Your task to perform on an android device: open app "Nova Launcher" (install if not already installed) and enter user name: "haggard@gmail.com" and password: "sadder" Image 0: 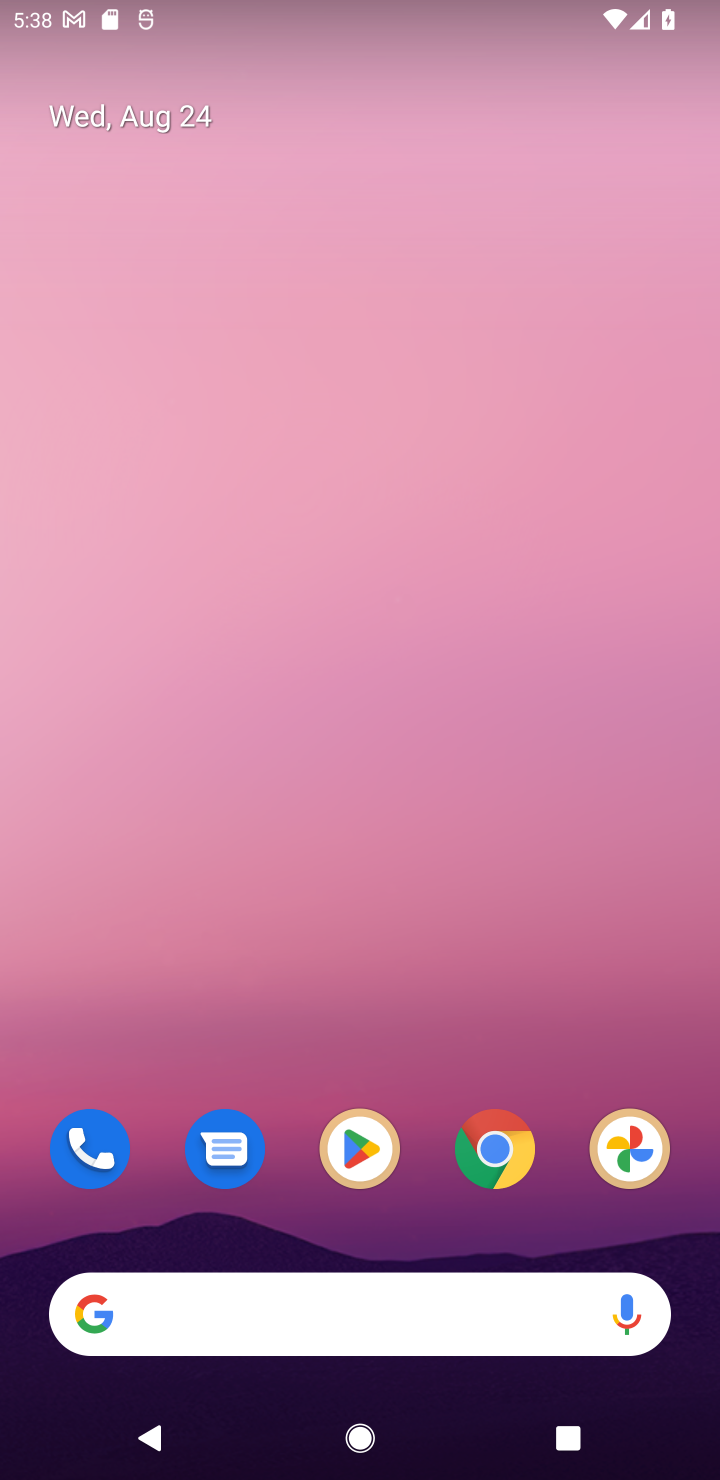
Step 0: click (359, 1132)
Your task to perform on an android device: open app "Nova Launcher" (install if not already installed) and enter user name: "haggard@gmail.com" and password: "sadder" Image 1: 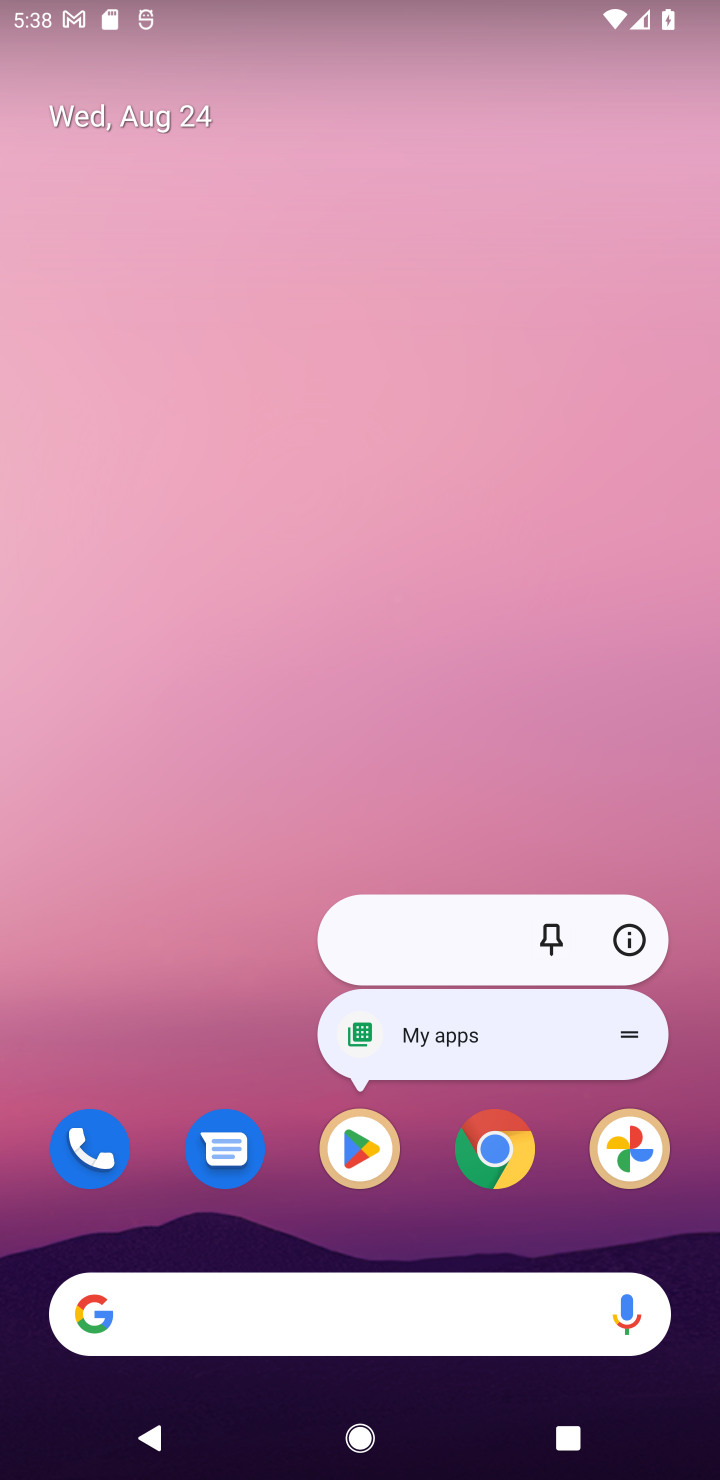
Step 1: click (359, 1134)
Your task to perform on an android device: open app "Nova Launcher" (install if not already installed) and enter user name: "haggard@gmail.com" and password: "sadder" Image 2: 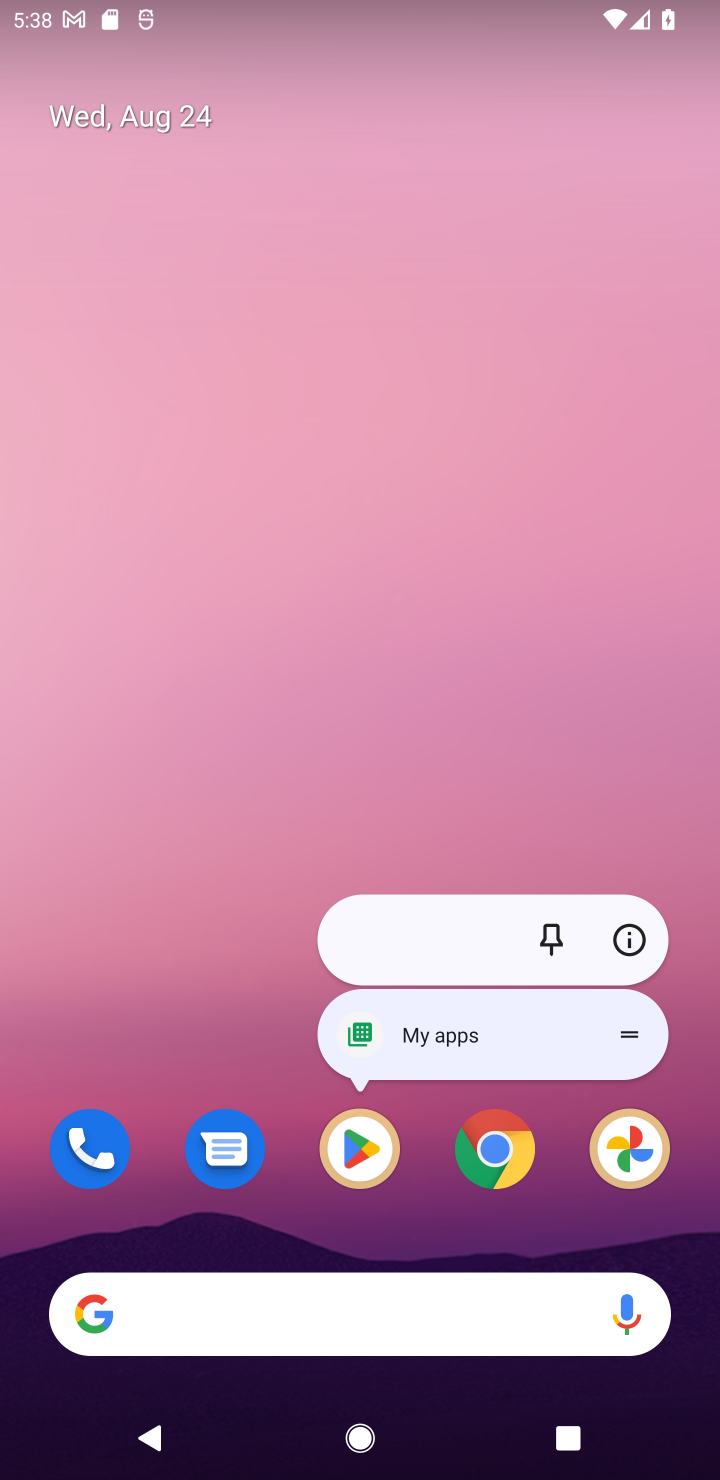
Step 2: click (359, 1136)
Your task to perform on an android device: open app "Nova Launcher" (install if not already installed) and enter user name: "haggard@gmail.com" and password: "sadder" Image 3: 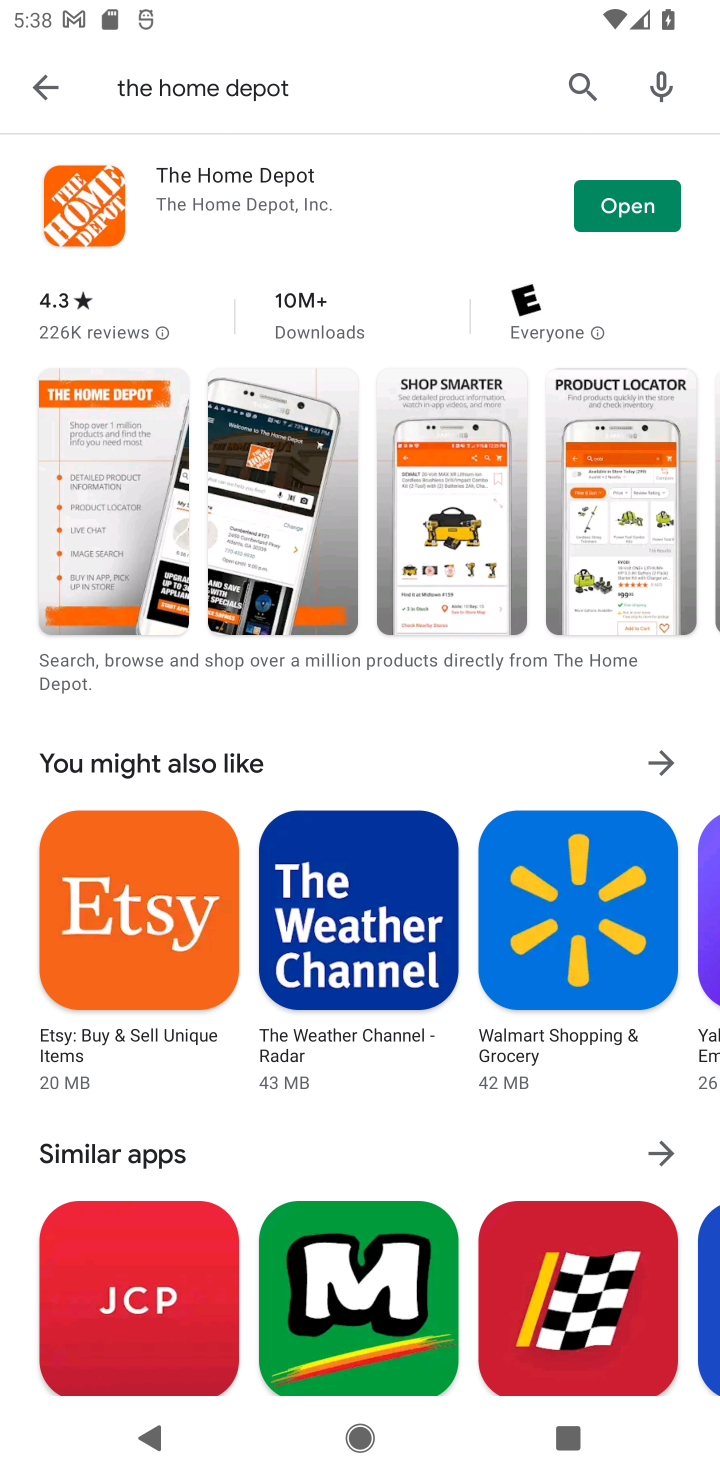
Step 3: click (563, 78)
Your task to perform on an android device: open app "Nova Launcher" (install if not already installed) and enter user name: "haggard@gmail.com" and password: "sadder" Image 4: 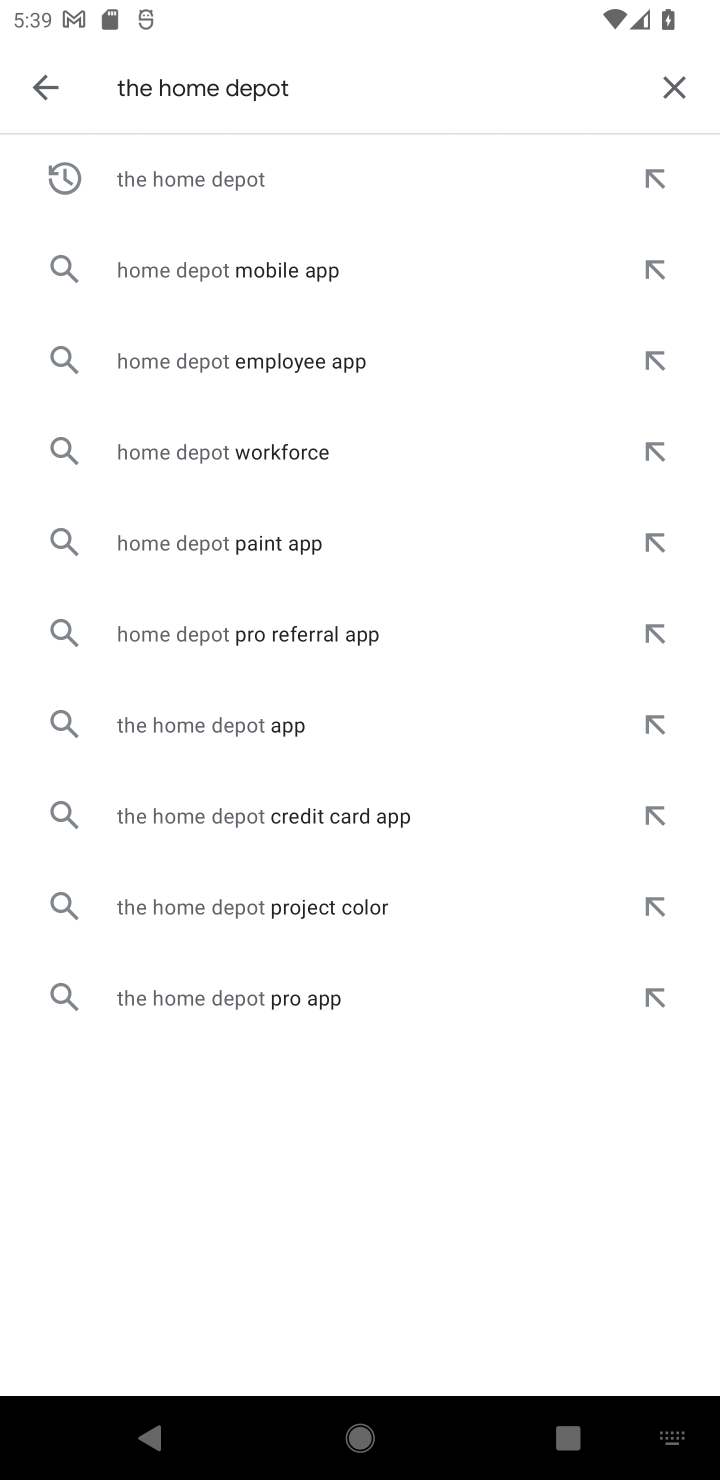
Step 4: click (661, 82)
Your task to perform on an android device: open app "Nova Launcher" (install if not already installed) and enter user name: "haggard@gmail.com" and password: "sadder" Image 5: 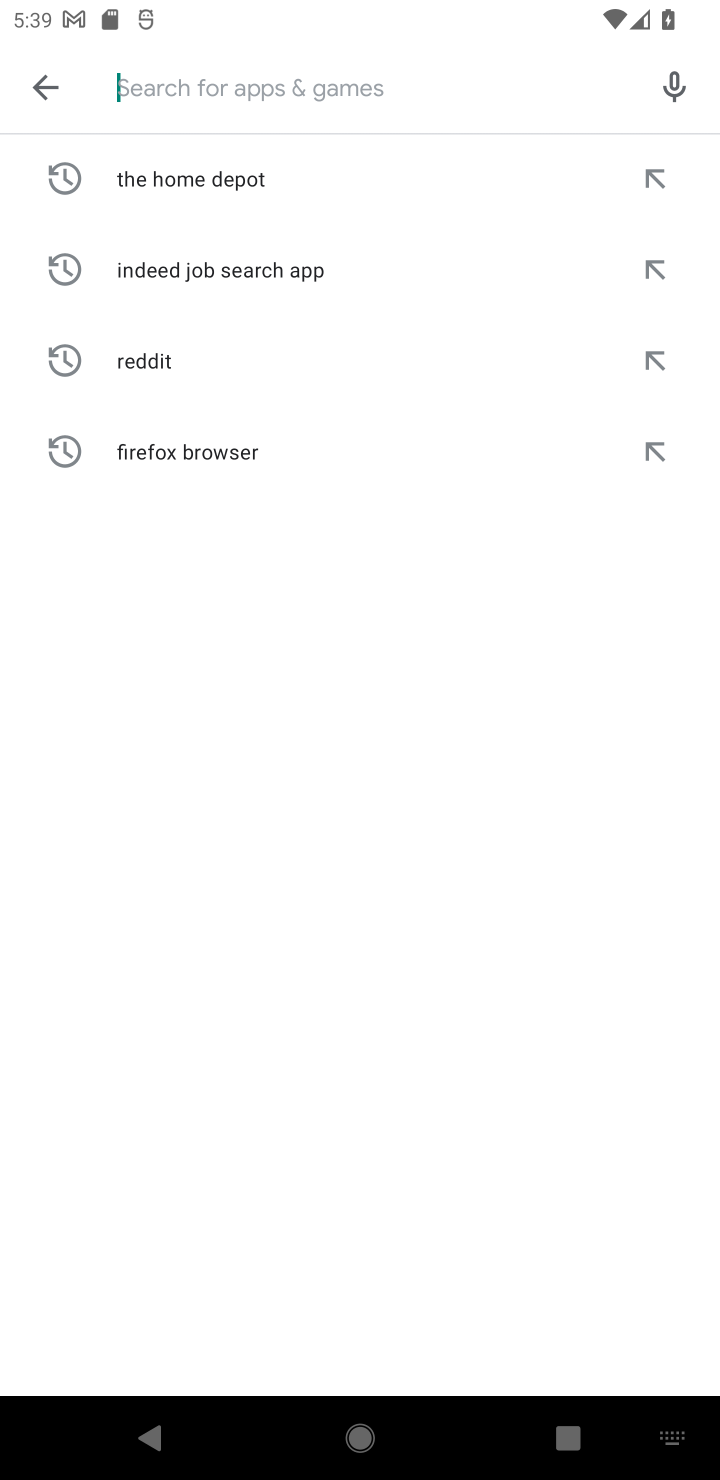
Step 5: type "Nova Launcher"
Your task to perform on an android device: open app "Nova Launcher" (install if not already installed) and enter user name: "haggard@gmail.com" and password: "sadder" Image 6: 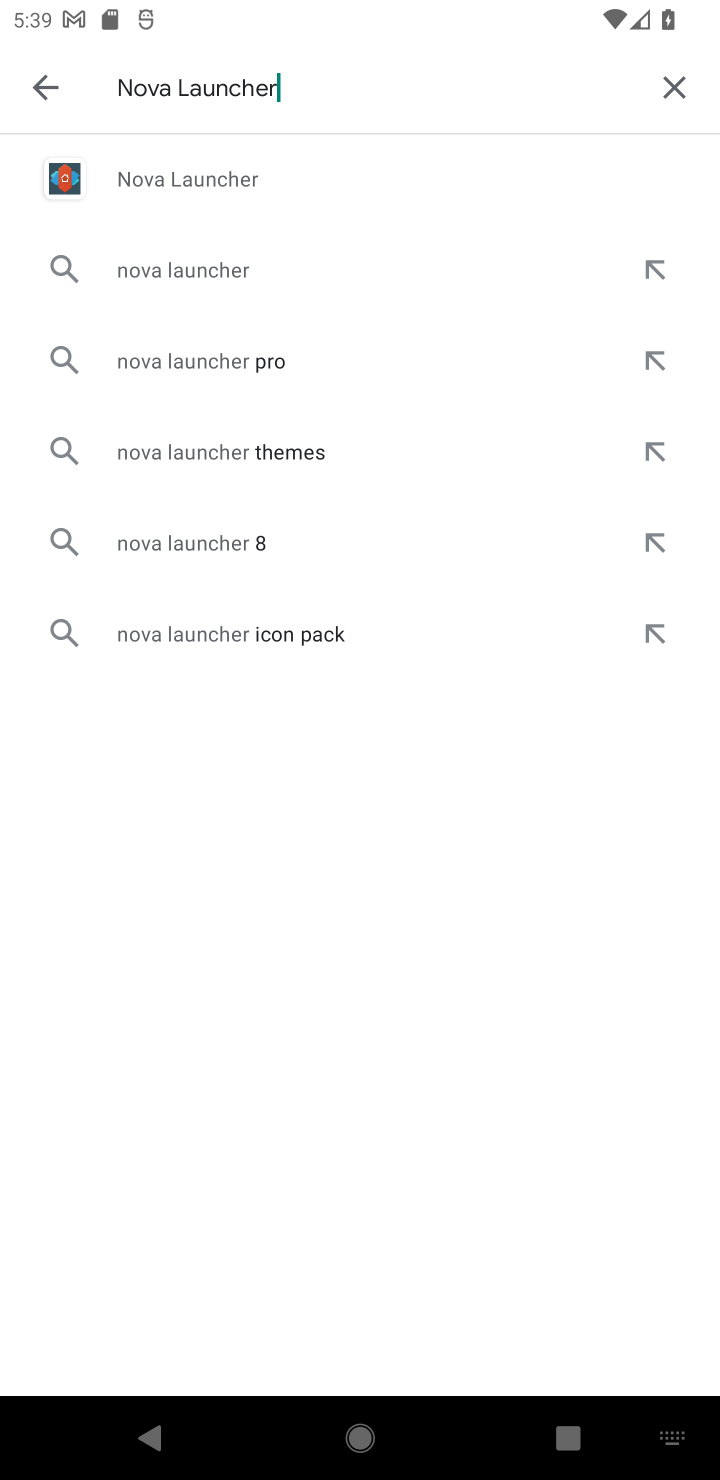
Step 6: click (224, 184)
Your task to perform on an android device: open app "Nova Launcher" (install if not already installed) and enter user name: "haggard@gmail.com" and password: "sadder" Image 7: 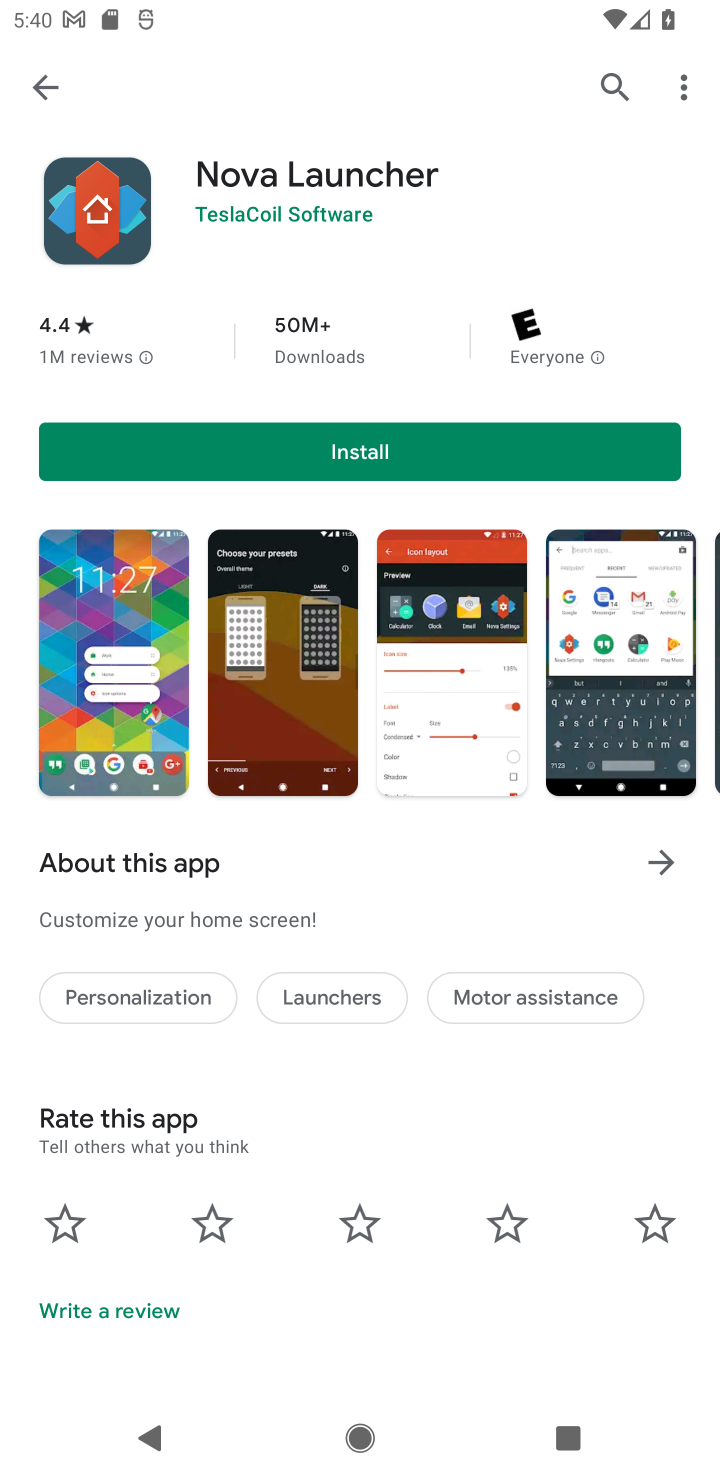
Step 7: click (360, 442)
Your task to perform on an android device: open app "Nova Launcher" (install if not already installed) and enter user name: "haggard@gmail.com" and password: "sadder" Image 8: 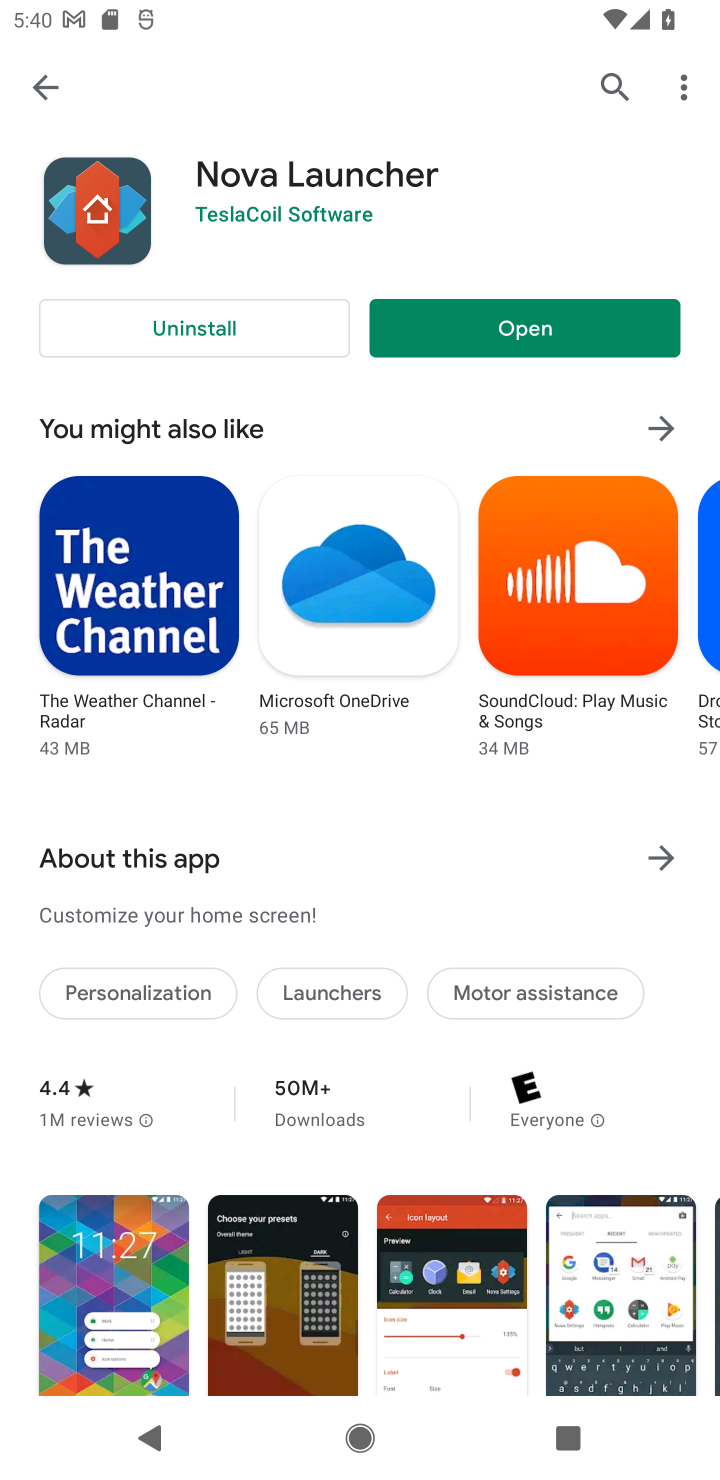
Step 8: click (540, 326)
Your task to perform on an android device: open app "Nova Launcher" (install if not already installed) and enter user name: "haggard@gmail.com" and password: "sadder" Image 9: 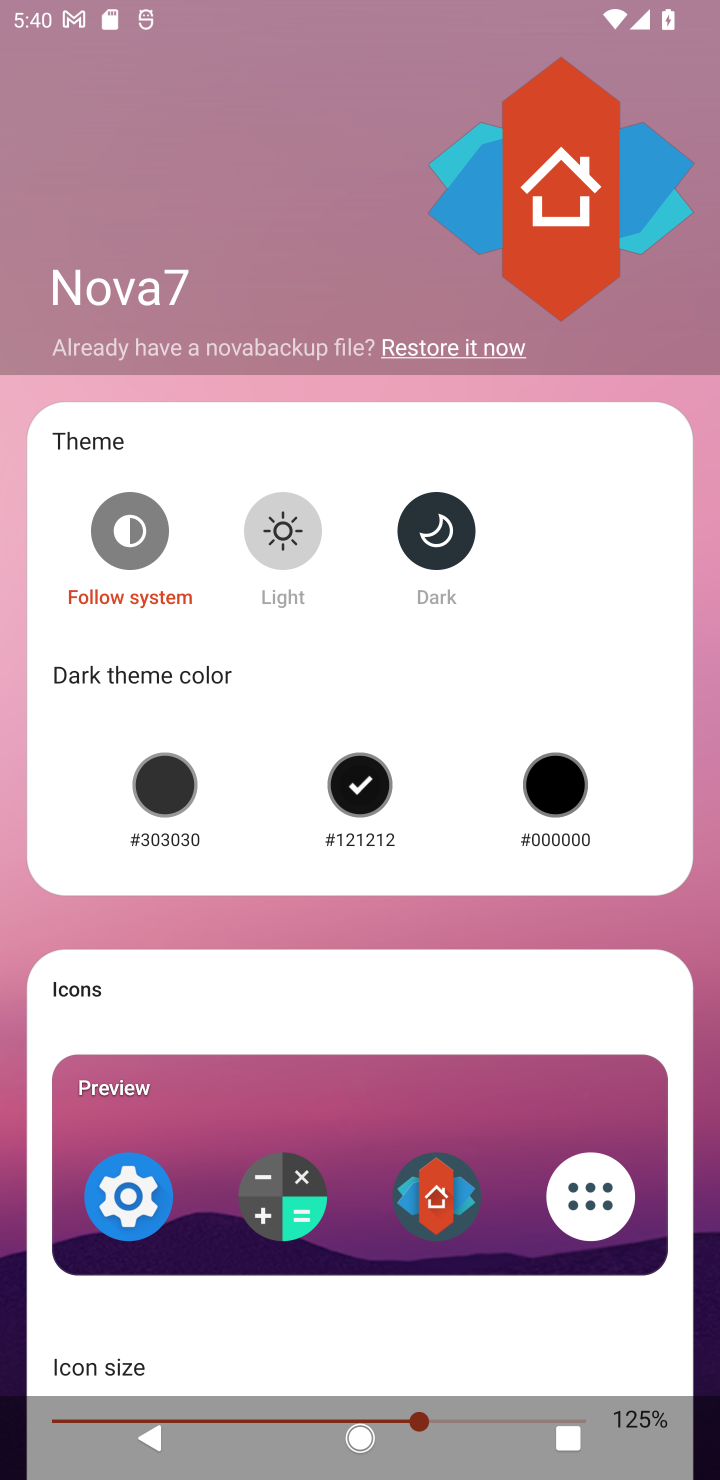
Step 9: task complete